Your task to perform on an android device: show emergency info Image 0: 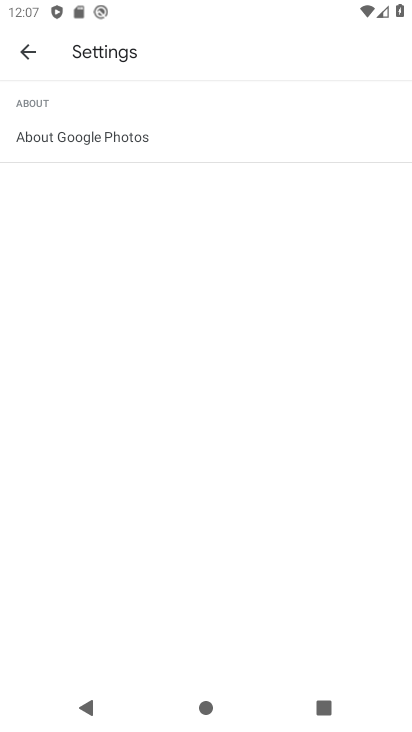
Step 0: press home button
Your task to perform on an android device: show emergency info Image 1: 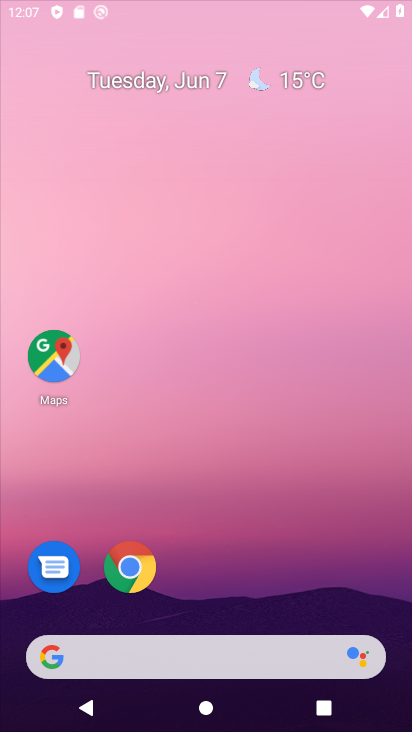
Step 1: drag from (192, 670) to (226, 66)
Your task to perform on an android device: show emergency info Image 2: 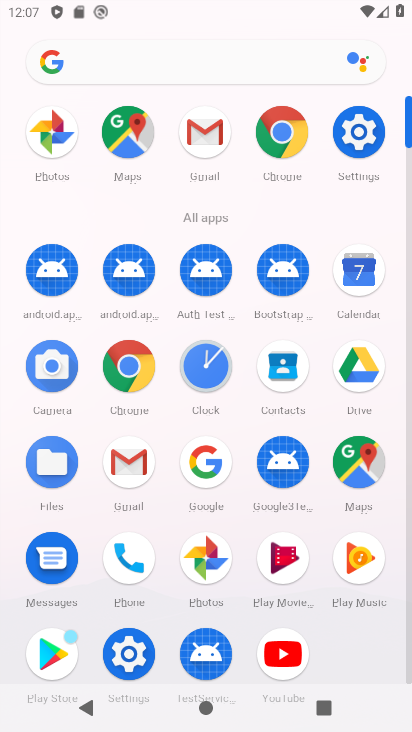
Step 2: click (139, 646)
Your task to perform on an android device: show emergency info Image 3: 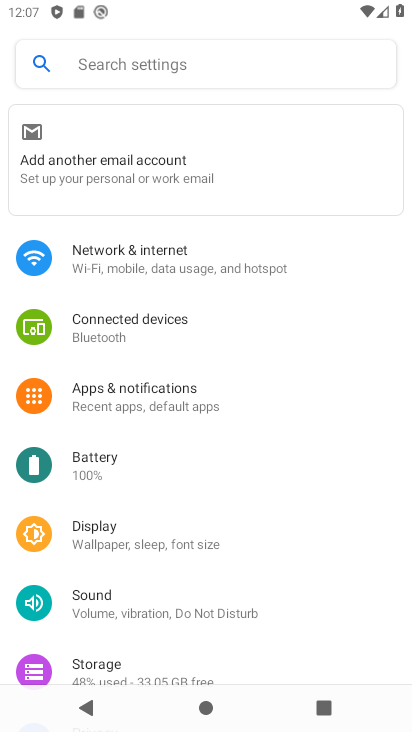
Step 3: drag from (252, 622) to (364, 148)
Your task to perform on an android device: show emergency info Image 4: 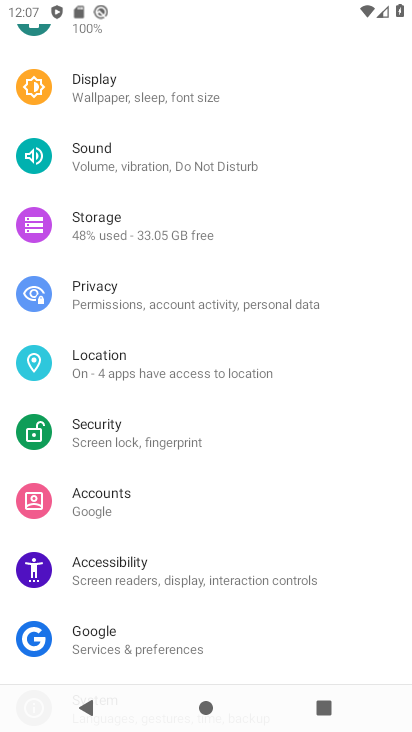
Step 4: drag from (307, 564) to (401, 140)
Your task to perform on an android device: show emergency info Image 5: 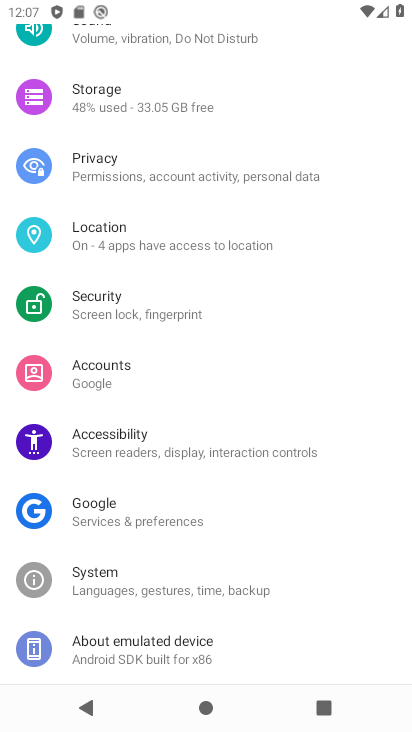
Step 5: click (192, 660)
Your task to perform on an android device: show emergency info Image 6: 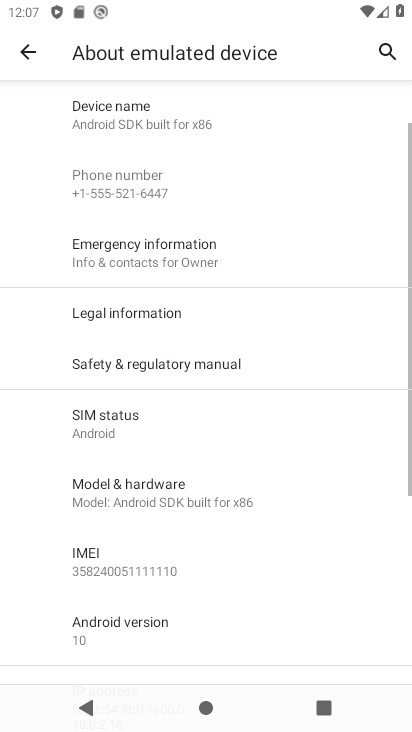
Step 6: click (173, 247)
Your task to perform on an android device: show emergency info Image 7: 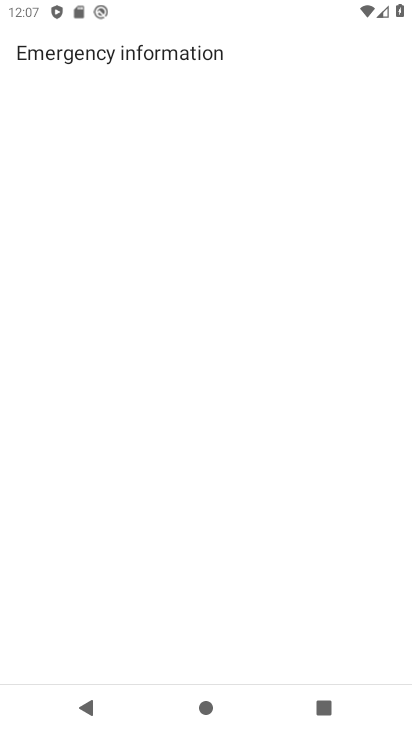
Step 7: task complete